Your task to perform on an android device: Go to network settings Image 0: 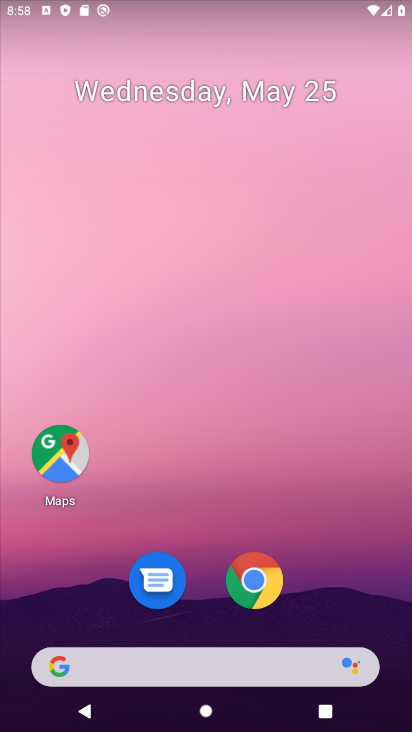
Step 0: press home button
Your task to perform on an android device: Go to network settings Image 1: 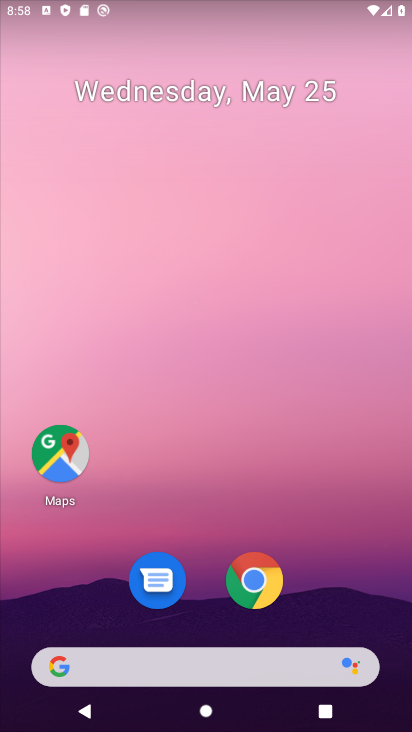
Step 1: drag from (78, 559) to (257, 159)
Your task to perform on an android device: Go to network settings Image 2: 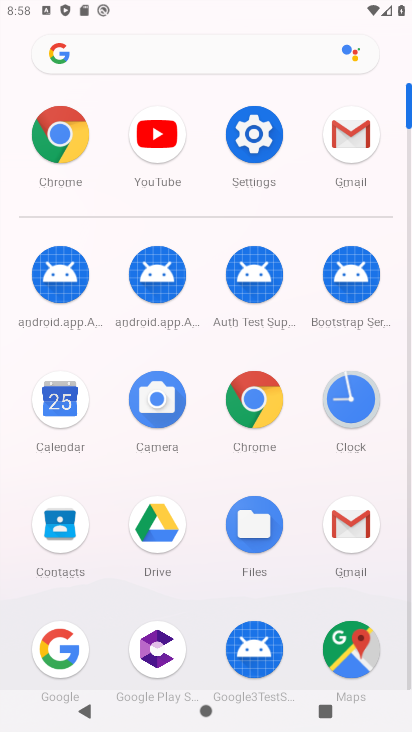
Step 2: click (251, 164)
Your task to perform on an android device: Go to network settings Image 3: 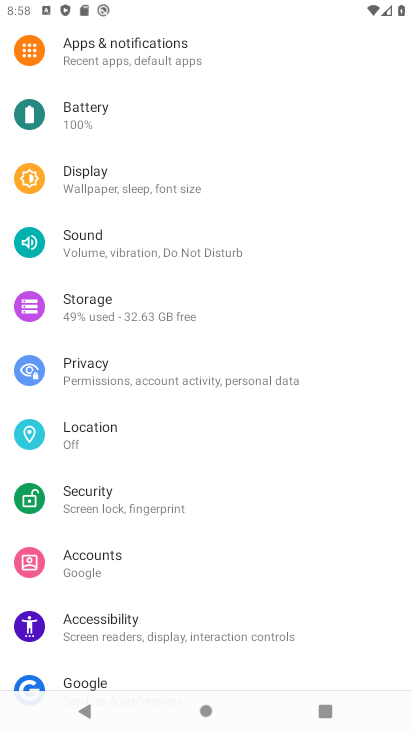
Step 3: drag from (169, 58) to (167, 625)
Your task to perform on an android device: Go to network settings Image 4: 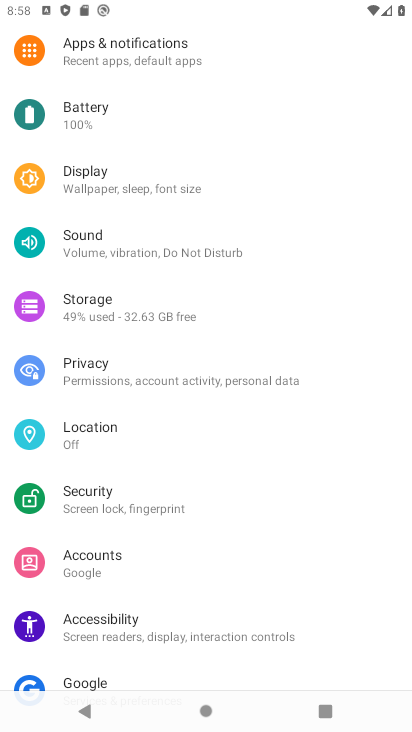
Step 4: drag from (114, 107) to (147, 640)
Your task to perform on an android device: Go to network settings Image 5: 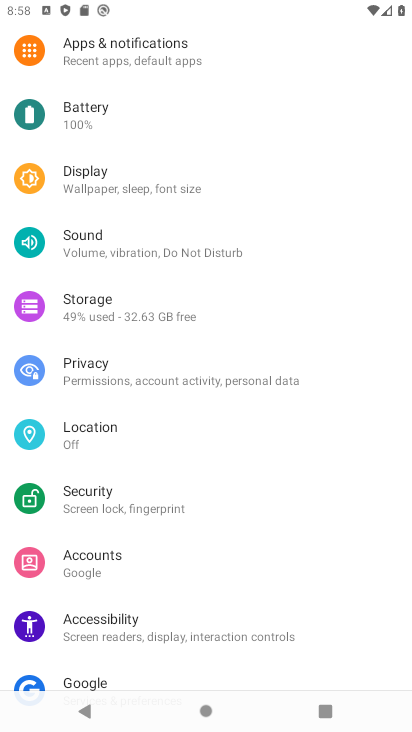
Step 5: drag from (266, 124) to (273, 601)
Your task to perform on an android device: Go to network settings Image 6: 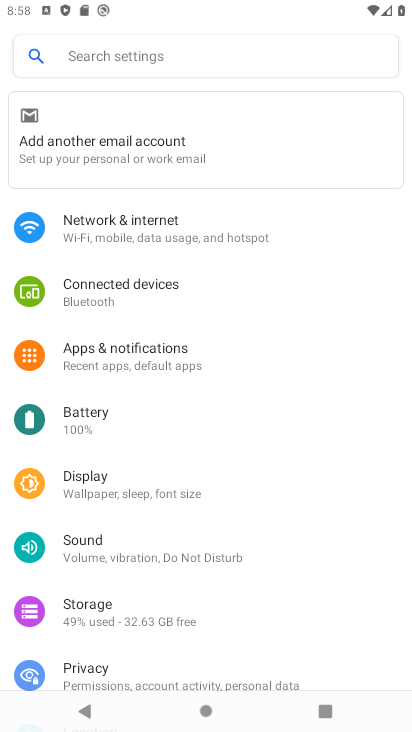
Step 6: click (181, 232)
Your task to perform on an android device: Go to network settings Image 7: 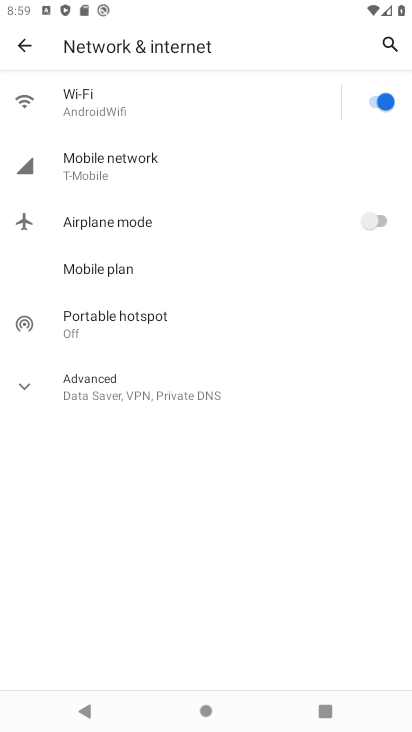
Step 7: task complete